Your task to perform on an android device: turn on wifi Image 0: 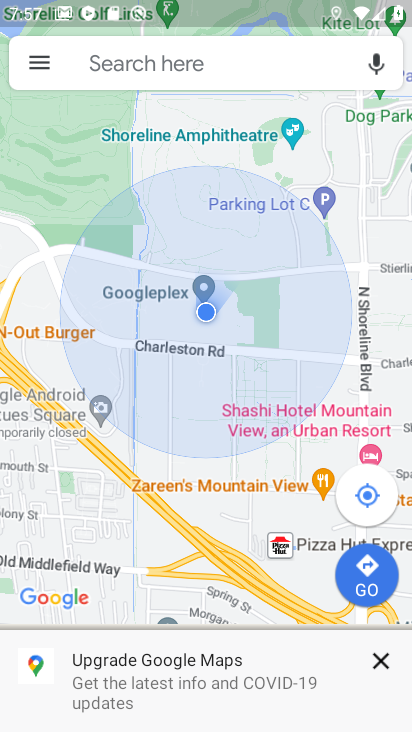
Step 0: drag from (247, 8) to (194, 574)
Your task to perform on an android device: turn on wifi Image 1: 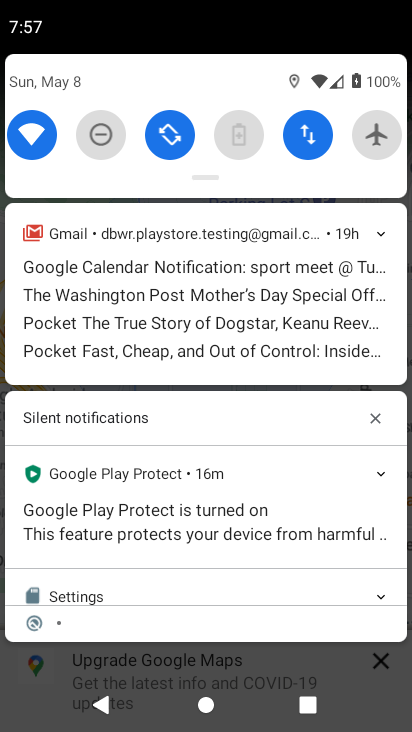
Step 1: task complete